Your task to perform on an android device: turn pop-ups on in chrome Image 0: 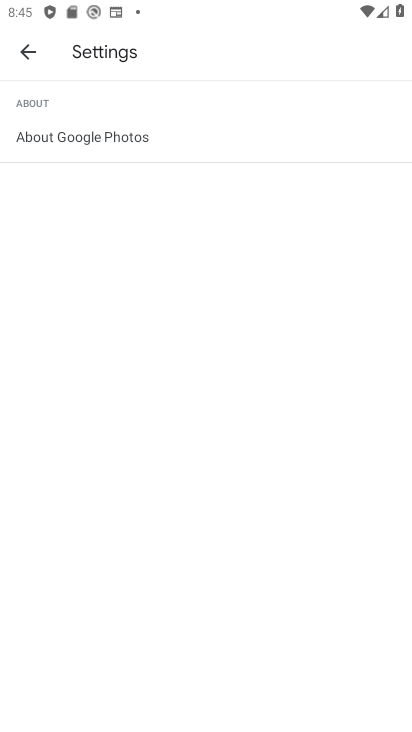
Step 0: press back button
Your task to perform on an android device: turn pop-ups on in chrome Image 1: 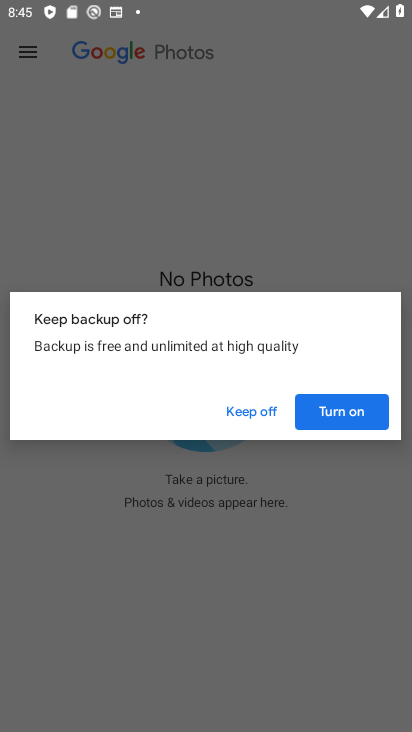
Step 1: press back button
Your task to perform on an android device: turn pop-ups on in chrome Image 2: 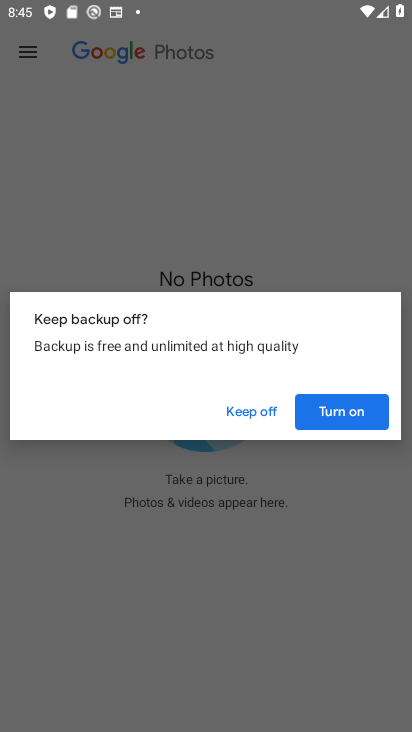
Step 2: press home button
Your task to perform on an android device: turn pop-ups on in chrome Image 3: 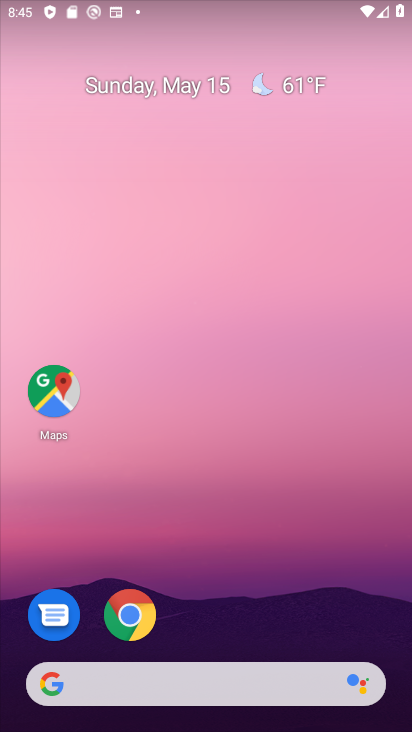
Step 3: drag from (247, 600) to (170, 2)
Your task to perform on an android device: turn pop-ups on in chrome Image 4: 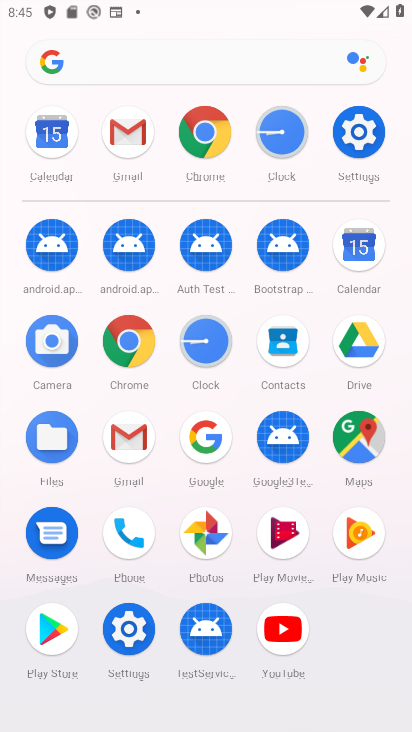
Step 4: click (204, 131)
Your task to perform on an android device: turn pop-ups on in chrome Image 5: 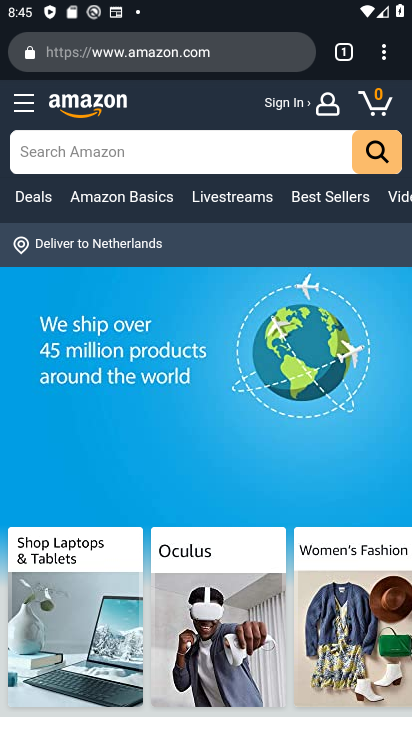
Step 5: drag from (385, 57) to (209, 622)
Your task to perform on an android device: turn pop-ups on in chrome Image 6: 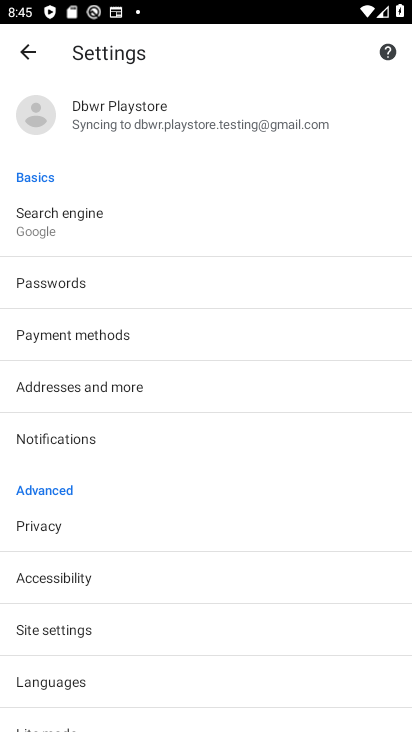
Step 6: click (91, 625)
Your task to perform on an android device: turn pop-ups on in chrome Image 7: 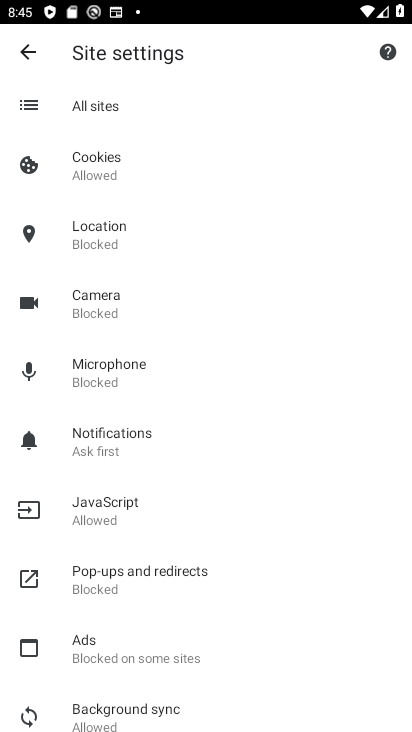
Step 7: click (140, 581)
Your task to perform on an android device: turn pop-ups on in chrome Image 8: 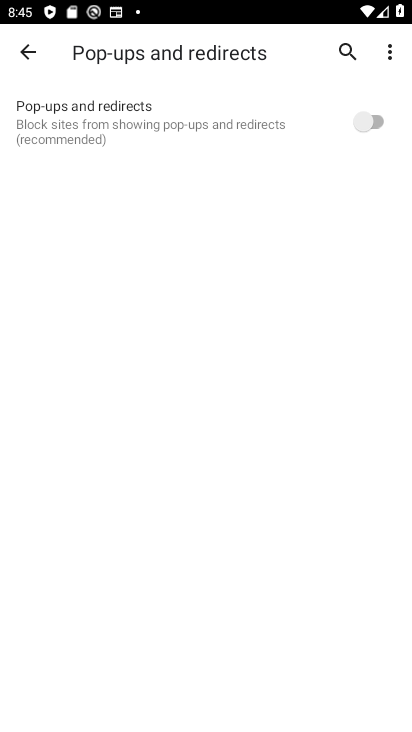
Step 8: click (368, 116)
Your task to perform on an android device: turn pop-ups on in chrome Image 9: 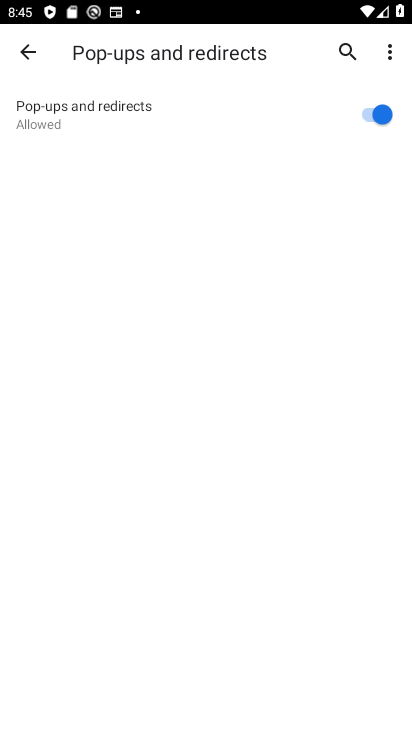
Step 9: task complete